Your task to perform on an android device: change alarm snooze length Image 0: 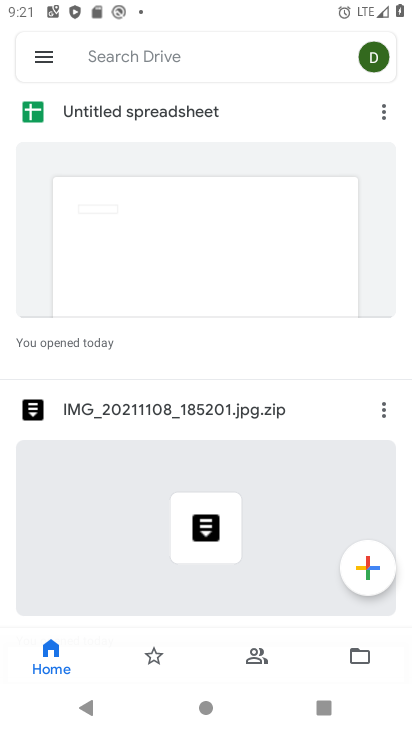
Step 0: press home button
Your task to perform on an android device: change alarm snooze length Image 1: 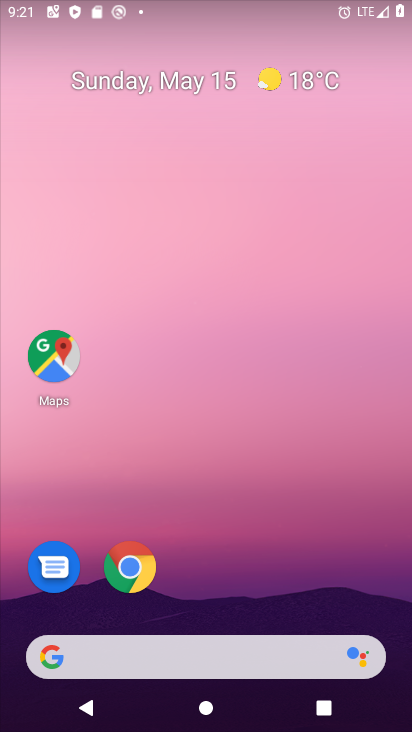
Step 1: drag from (234, 540) to (252, 43)
Your task to perform on an android device: change alarm snooze length Image 2: 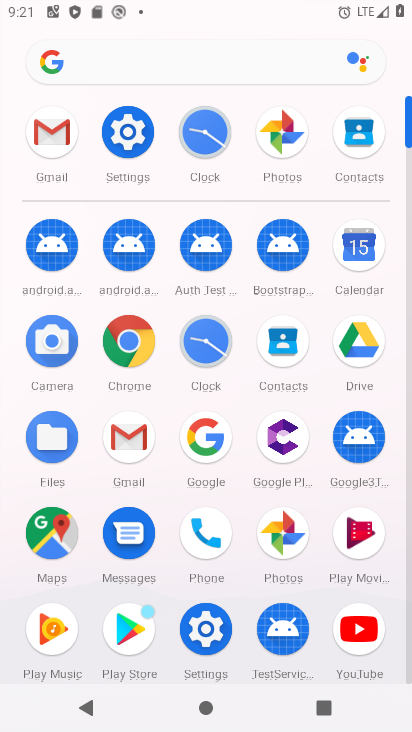
Step 2: click (203, 337)
Your task to perform on an android device: change alarm snooze length Image 3: 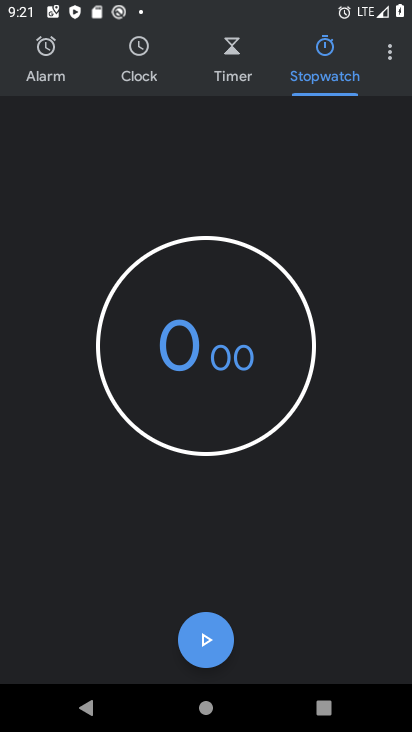
Step 3: click (397, 49)
Your task to perform on an android device: change alarm snooze length Image 4: 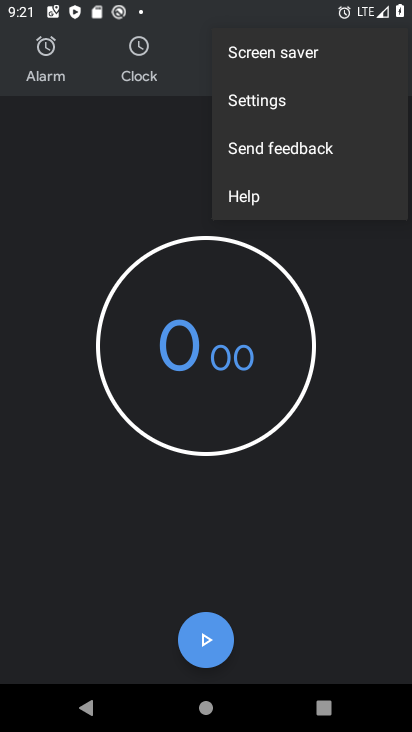
Step 4: click (274, 112)
Your task to perform on an android device: change alarm snooze length Image 5: 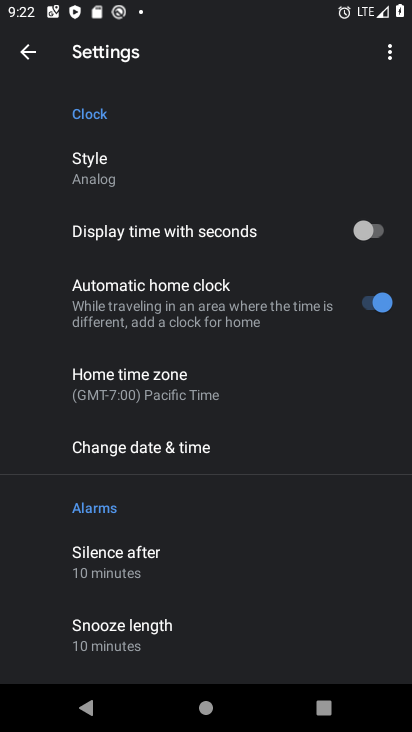
Step 5: click (137, 639)
Your task to perform on an android device: change alarm snooze length Image 6: 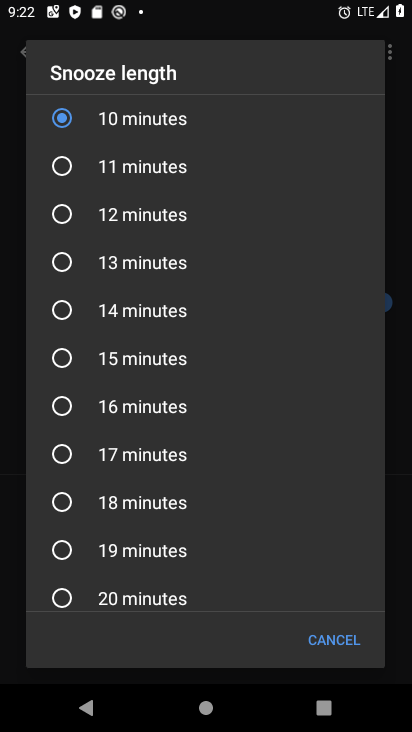
Step 6: click (189, 408)
Your task to perform on an android device: change alarm snooze length Image 7: 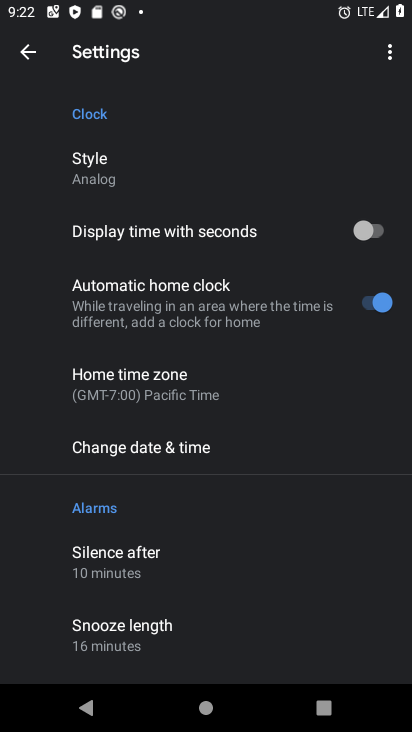
Step 7: task complete